Your task to perform on an android device: manage bookmarks in the chrome app Image 0: 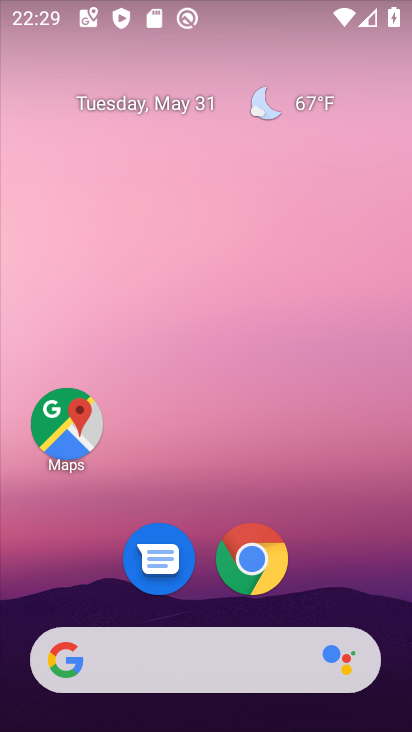
Step 0: click (253, 560)
Your task to perform on an android device: manage bookmarks in the chrome app Image 1: 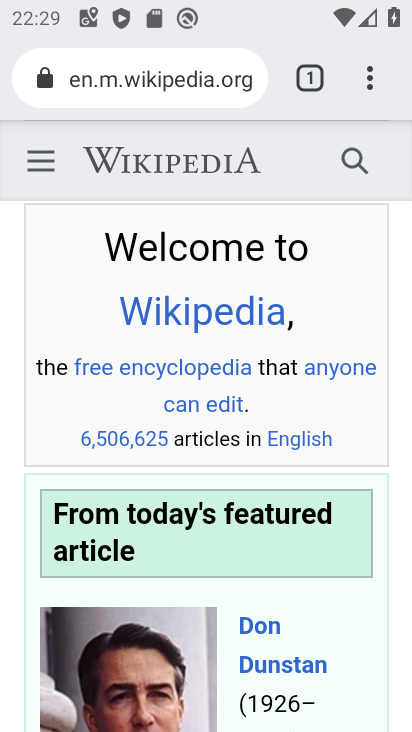
Step 1: click (357, 77)
Your task to perform on an android device: manage bookmarks in the chrome app Image 2: 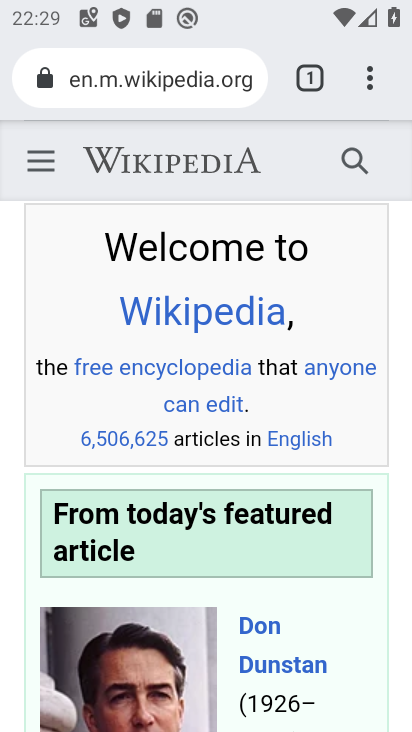
Step 2: click (361, 79)
Your task to perform on an android device: manage bookmarks in the chrome app Image 3: 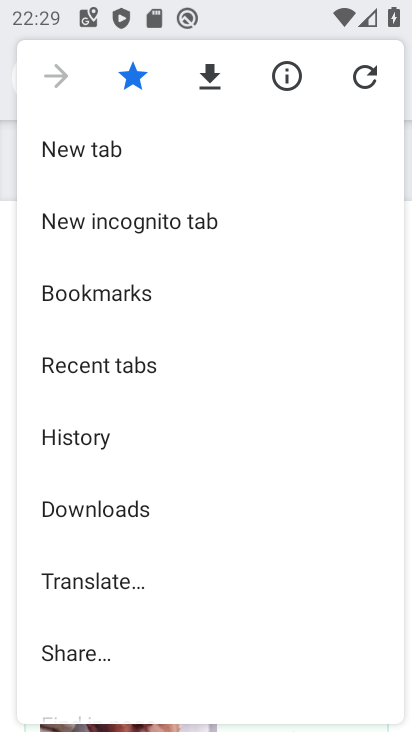
Step 3: click (95, 304)
Your task to perform on an android device: manage bookmarks in the chrome app Image 4: 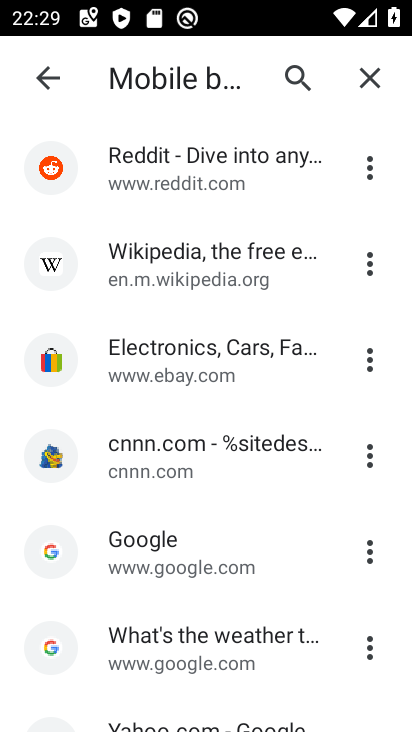
Step 4: click (363, 165)
Your task to perform on an android device: manage bookmarks in the chrome app Image 5: 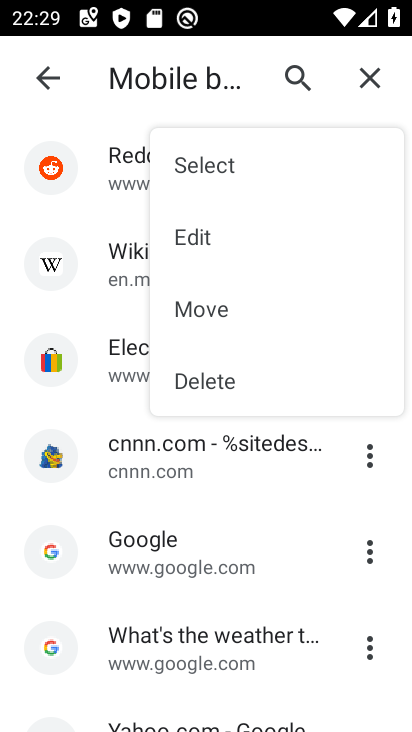
Step 5: click (224, 371)
Your task to perform on an android device: manage bookmarks in the chrome app Image 6: 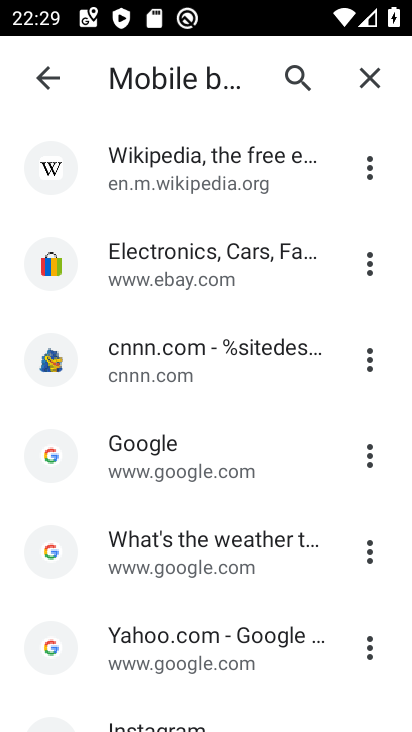
Step 6: task complete